Your task to perform on an android device: Open accessibility settings Image 0: 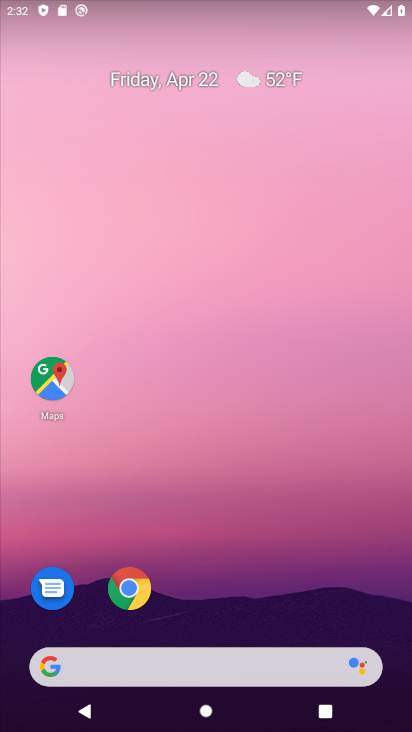
Step 0: drag from (323, 585) to (346, 33)
Your task to perform on an android device: Open accessibility settings Image 1: 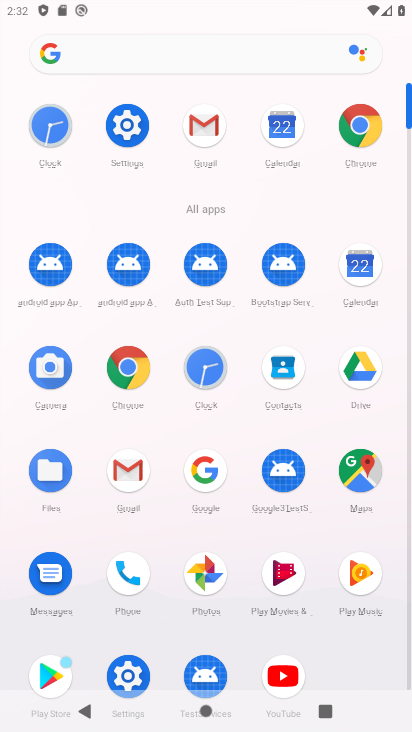
Step 1: click (128, 127)
Your task to perform on an android device: Open accessibility settings Image 2: 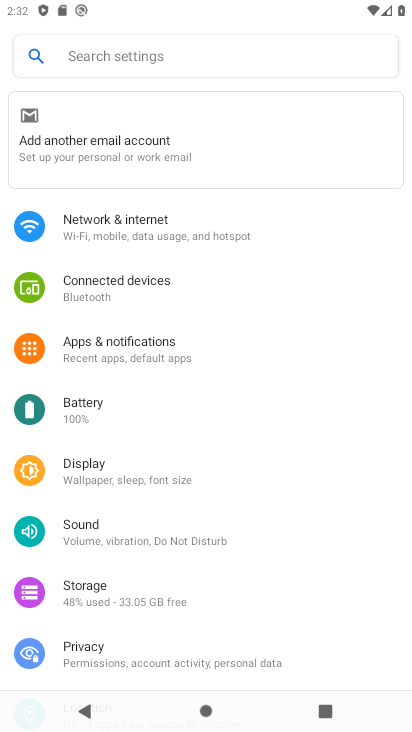
Step 2: drag from (185, 545) to (190, 343)
Your task to perform on an android device: Open accessibility settings Image 3: 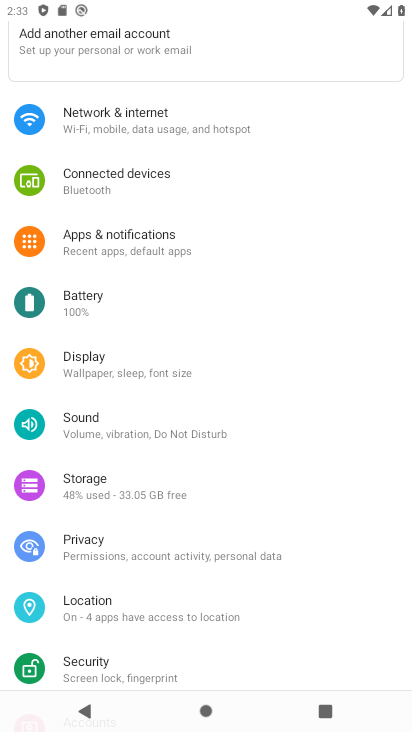
Step 3: drag from (202, 554) to (182, 226)
Your task to perform on an android device: Open accessibility settings Image 4: 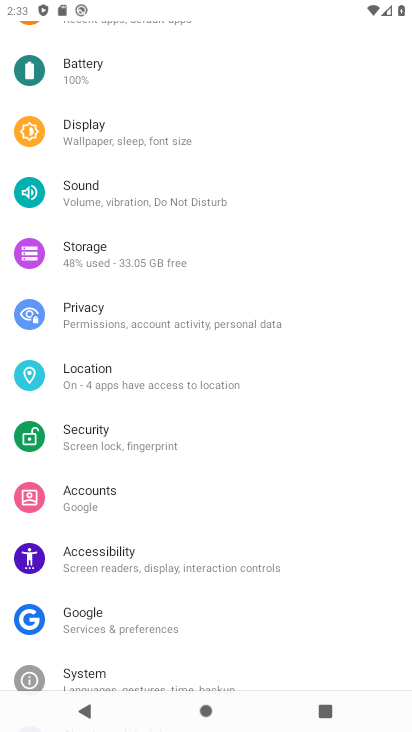
Step 4: click (121, 558)
Your task to perform on an android device: Open accessibility settings Image 5: 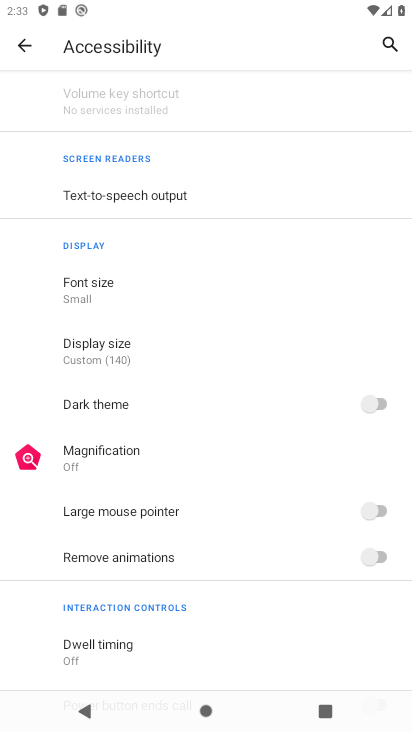
Step 5: task complete